Your task to perform on an android device: Open Chrome and go to settings Image 0: 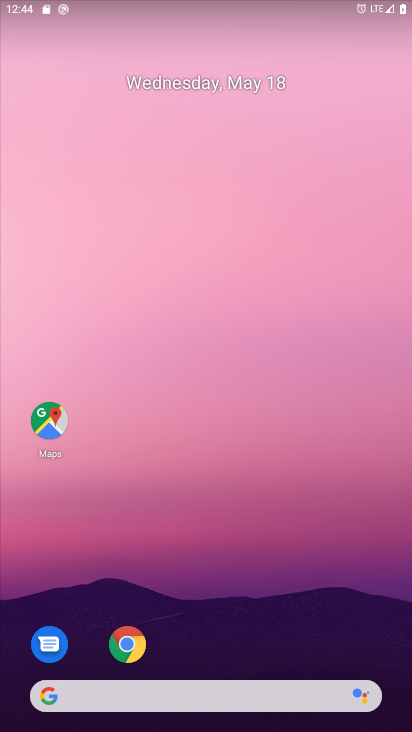
Step 0: press home button
Your task to perform on an android device: Open Chrome and go to settings Image 1: 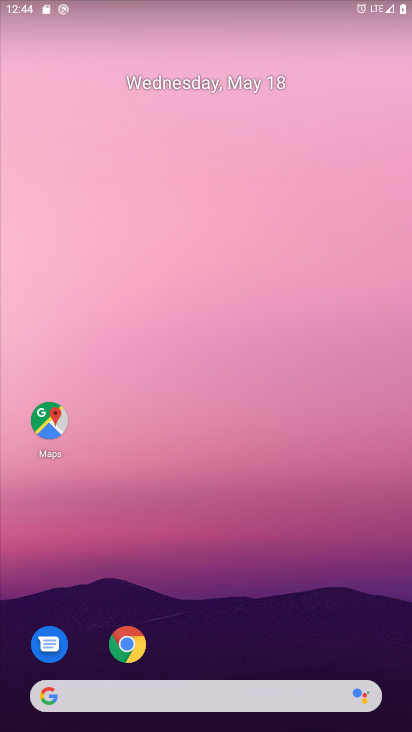
Step 1: click (120, 643)
Your task to perform on an android device: Open Chrome and go to settings Image 2: 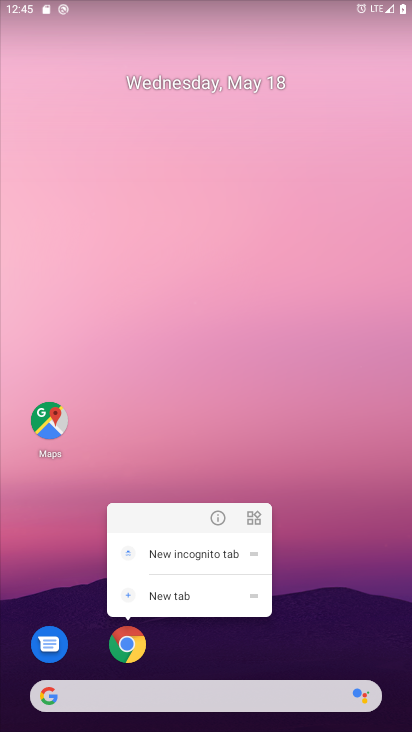
Step 2: click (133, 648)
Your task to perform on an android device: Open Chrome and go to settings Image 3: 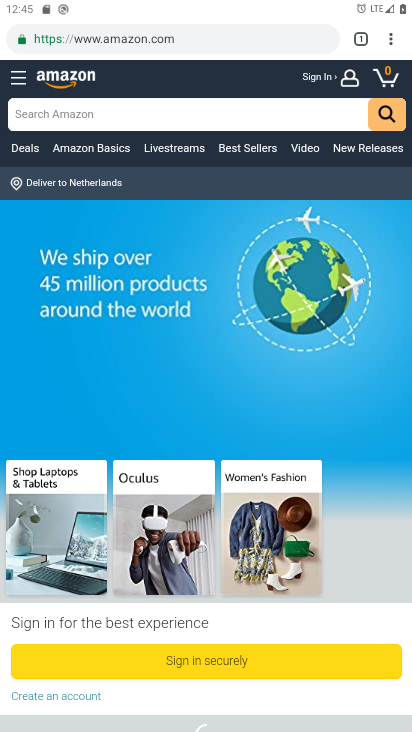
Step 3: click (389, 36)
Your task to perform on an android device: Open Chrome and go to settings Image 4: 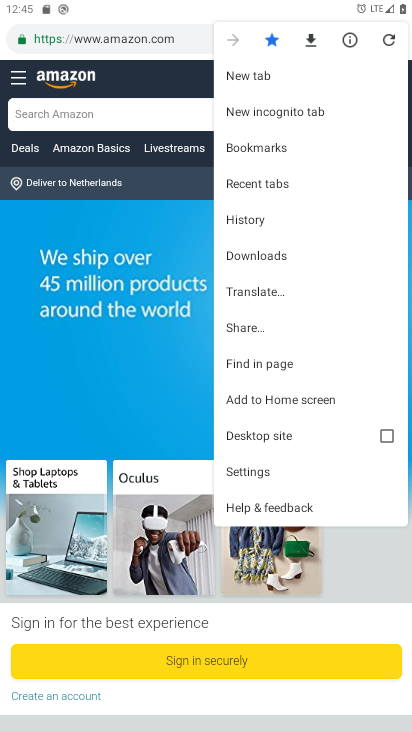
Step 4: click (273, 464)
Your task to perform on an android device: Open Chrome and go to settings Image 5: 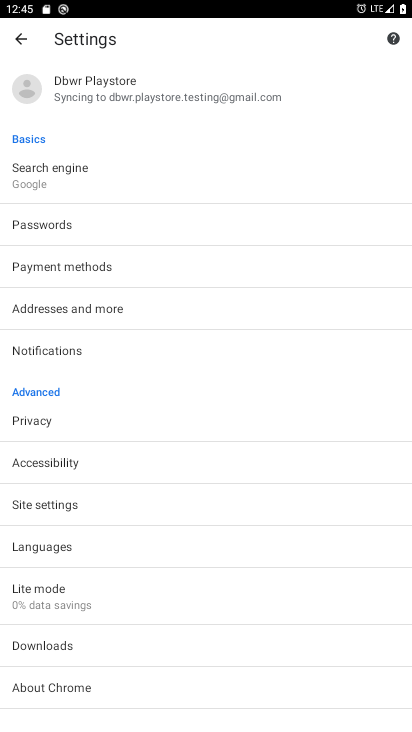
Step 5: task complete